Your task to perform on an android device: Add energizer triple a to the cart on ebay.com, then select checkout. Image 0: 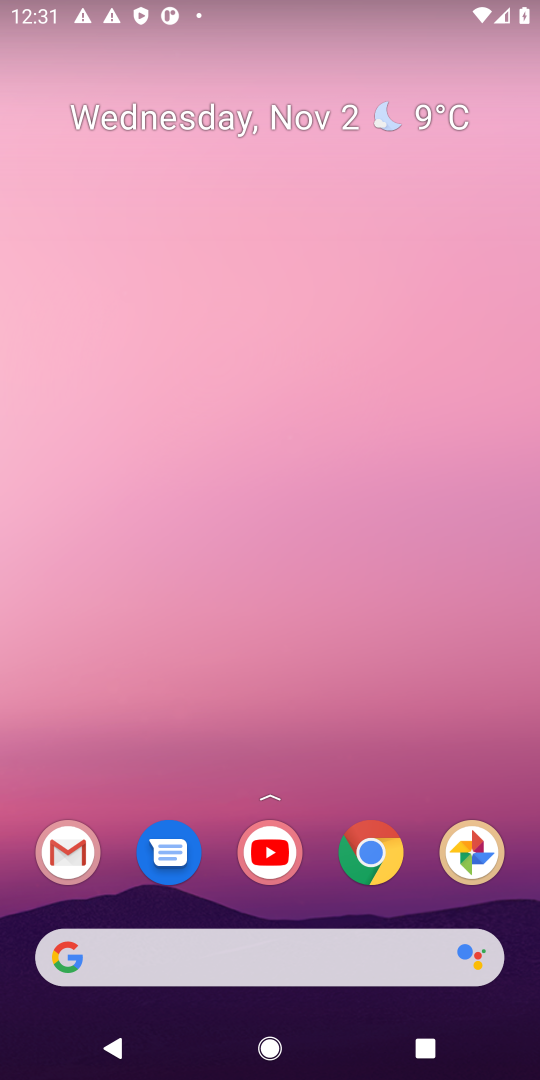
Step 0: drag from (359, 910) to (341, 172)
Your task to perform on an android device: Add energizer triple a to the cart on ebay.com, then select checkout. Image 1: 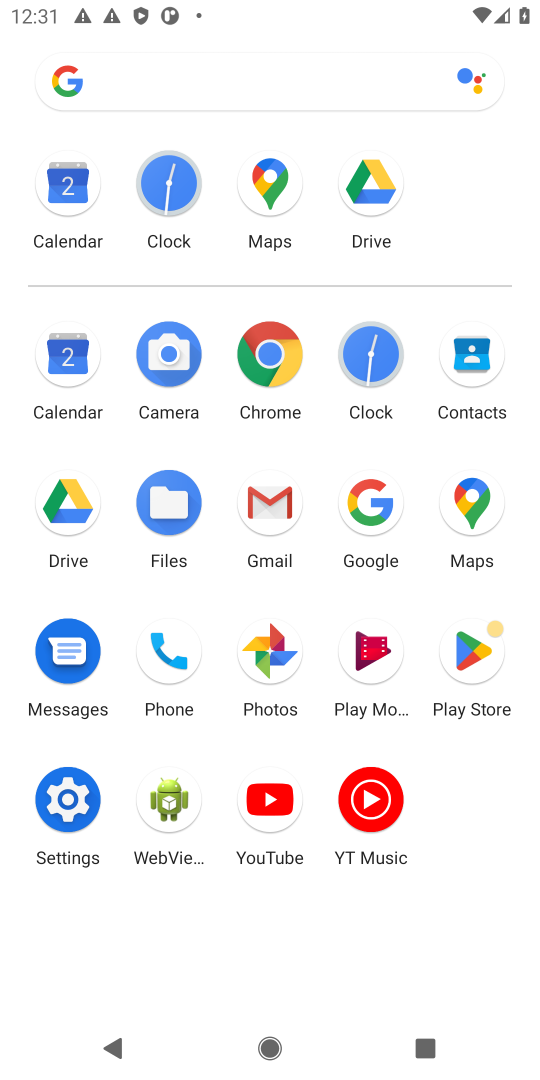
Step 1: click (363, 498)
Your task to perform on an android device: Add energizer triple a to the cart on ebay.com, then select checkout. Image 2: 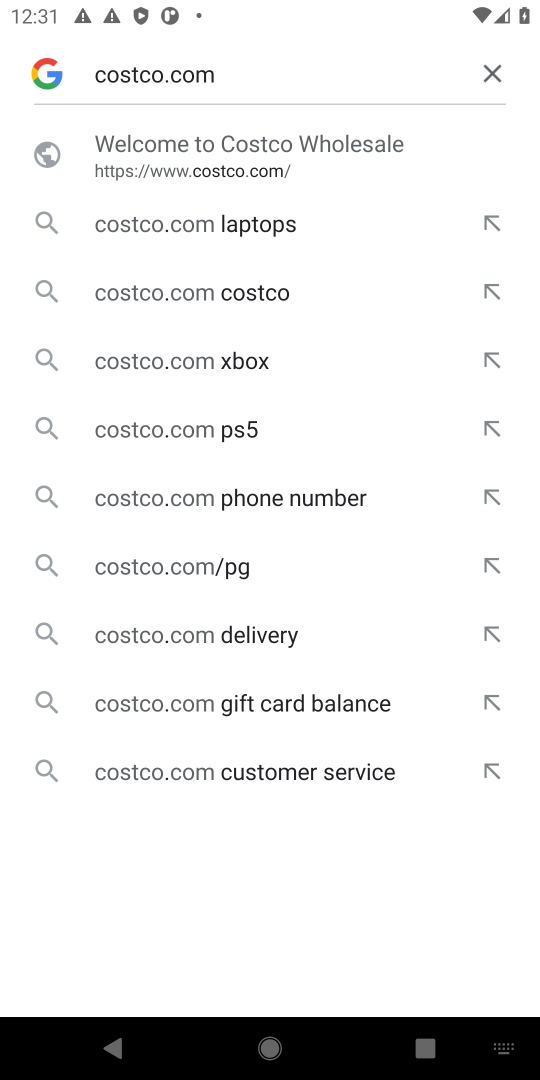
Step 2: click (493, 80)
Your task to perform on an android device: Add energizer triple a to the cart on ebay.com, then select checkout. Image 3: 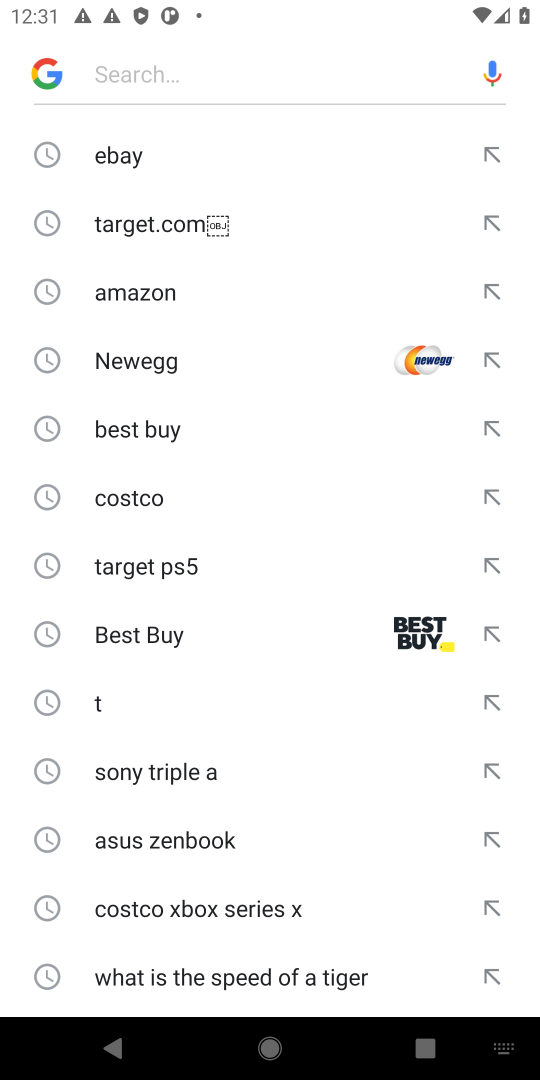
Step 3: type "ebay.com"
Your task to perform on an android device: Add energizer triple a to the cart on ebay.com, then select checkout. Image 4: 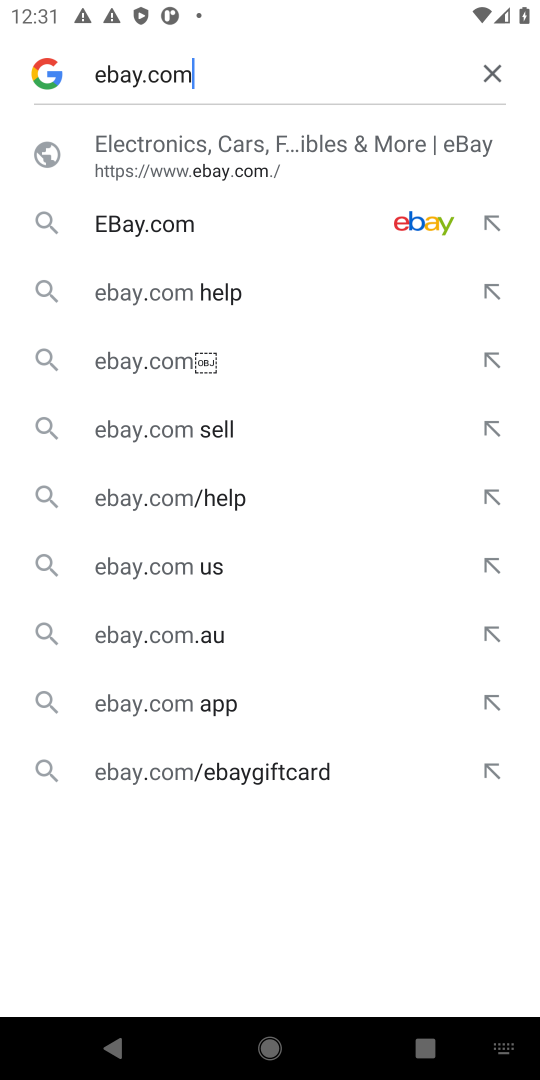
Step 4: click (335, 166)
Your task to perform on an android device: Add energizer triple a to the cart on ebay.com, then select checkout. Image 5: 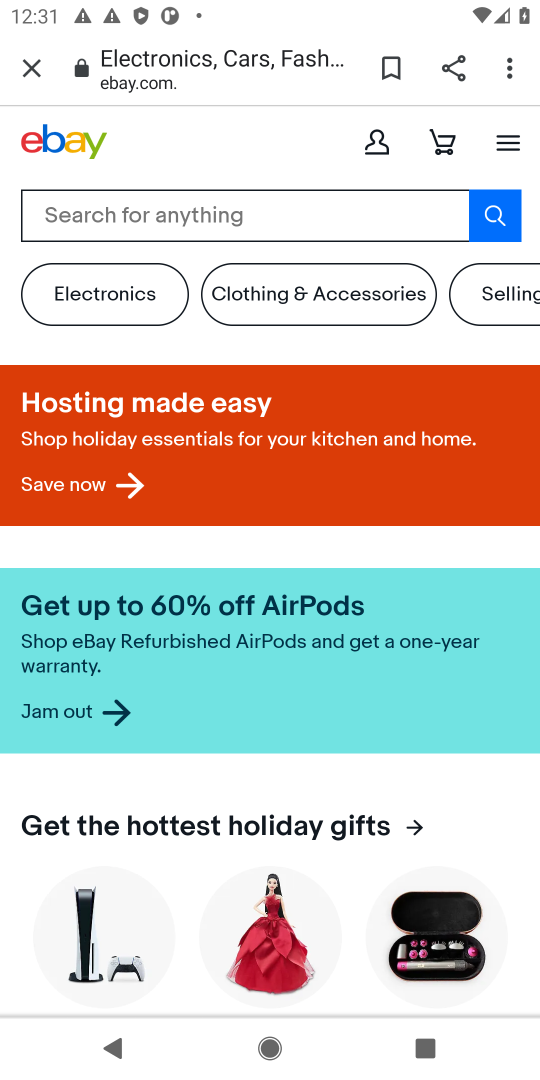
Step 5: drag from (242, 557) to (329, 101)
Your task to perform on an android device: Add energizer triple a to the cart on ebay.com, then select checkout. Image 6: 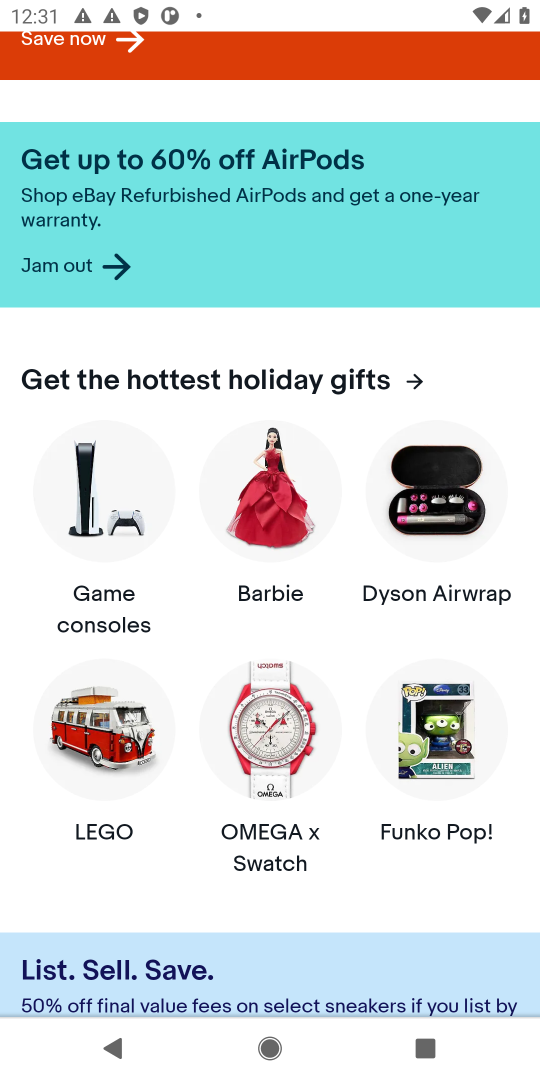
Step 6: drag from (333, 176) to (322, 410)
Your task to perform on an android device: Add energizer triple a to the cart on ebay.com, then select checkout. Image 7: 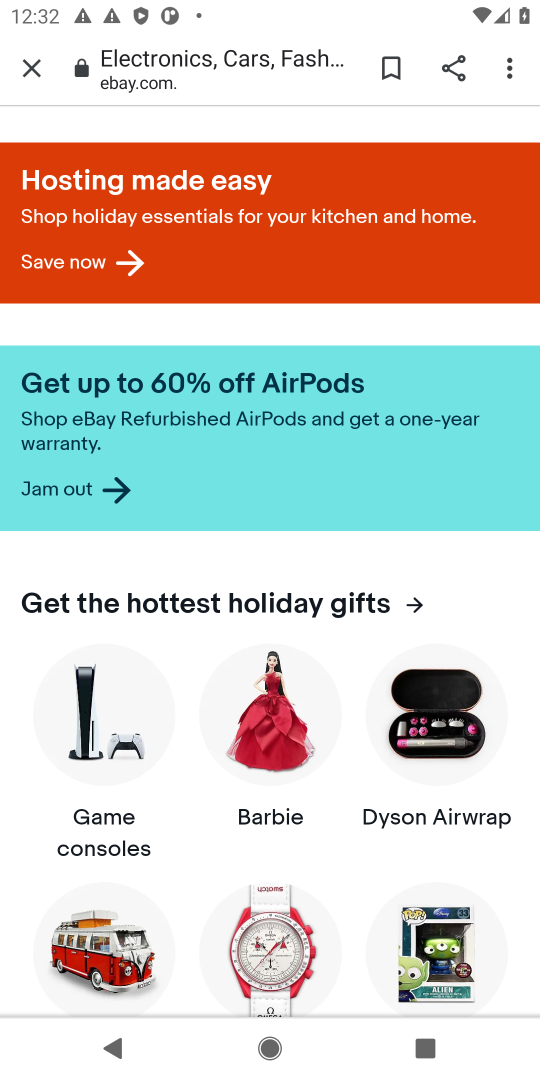
Step 7: drag from (165, 281) to (231, 479)
Your task to perform on an android device: Add energizer triple a to the cart on ebay.com, then select checkout. Image 8: 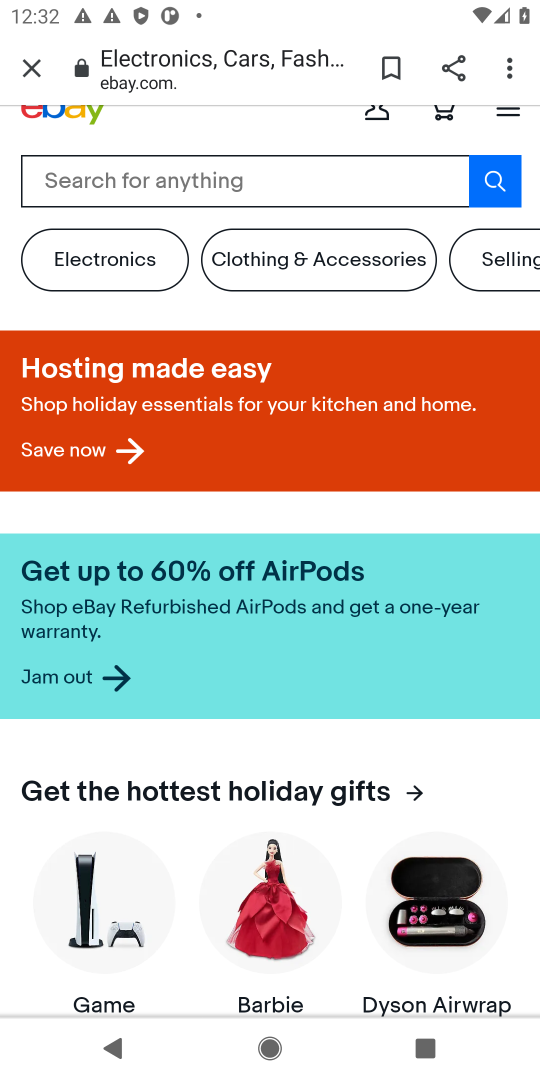
Step 8: click (299, 186)
Your task to perform on an android device: Add energizer triple a to the cart on ebay.com, then select checkout. Image 9: 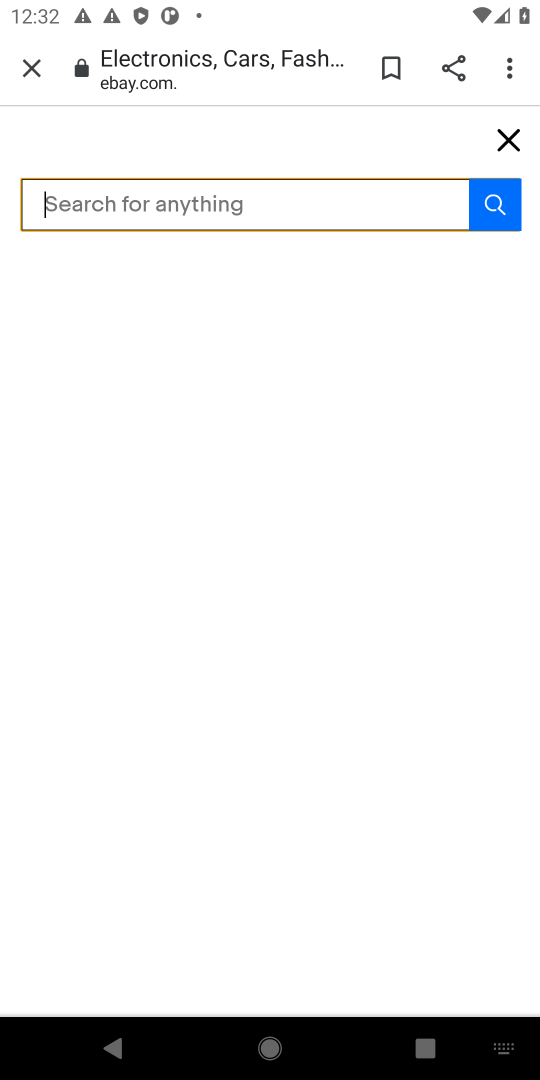
Step 9: type "energizer triple"
Your task to perform on an android device: Add energizer triple a to the cart on ebay.com, then select checkout. Image 10: 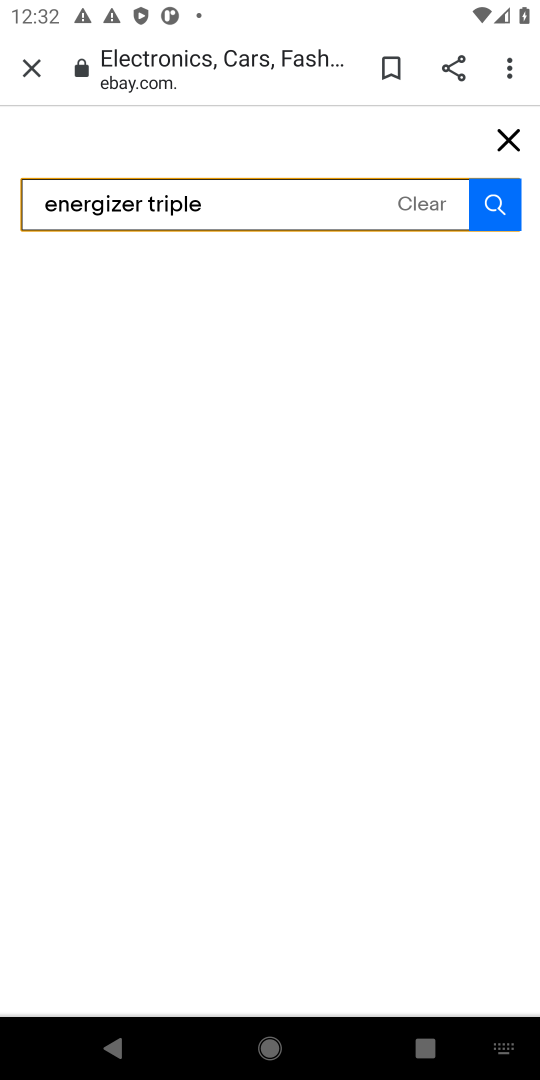
Step 10: click (485, 223)
Your task to perform on an android device: Add energizer triple a to the cart on ebay.com, then select checkout. Image 11: 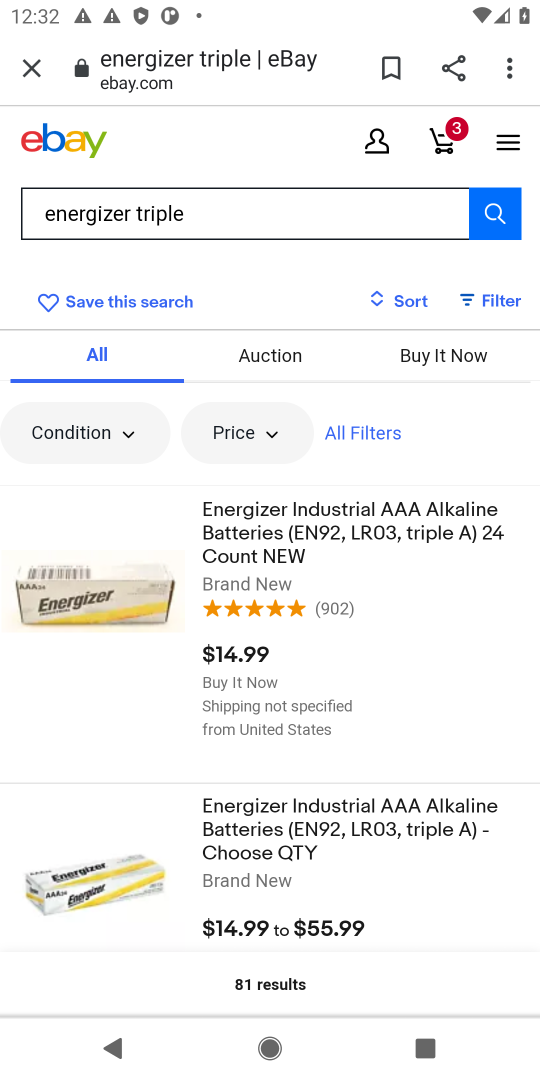
Step 11: click (384, 531)
Your task to perform on an android device: Add energizer triple a to the cart on ebay.com, then select checkout. Image 12: 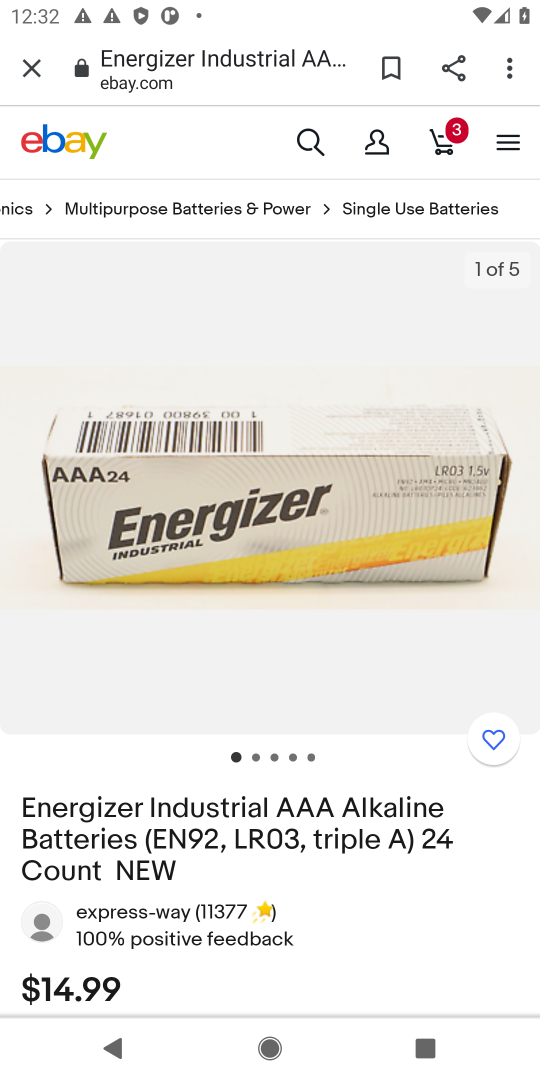
Step 12: drag from (367, 795) to (406, 420)
Your task to perform on an android device: Add energizer triple a to the cart on ebay.com, then select checkout. Image 13: 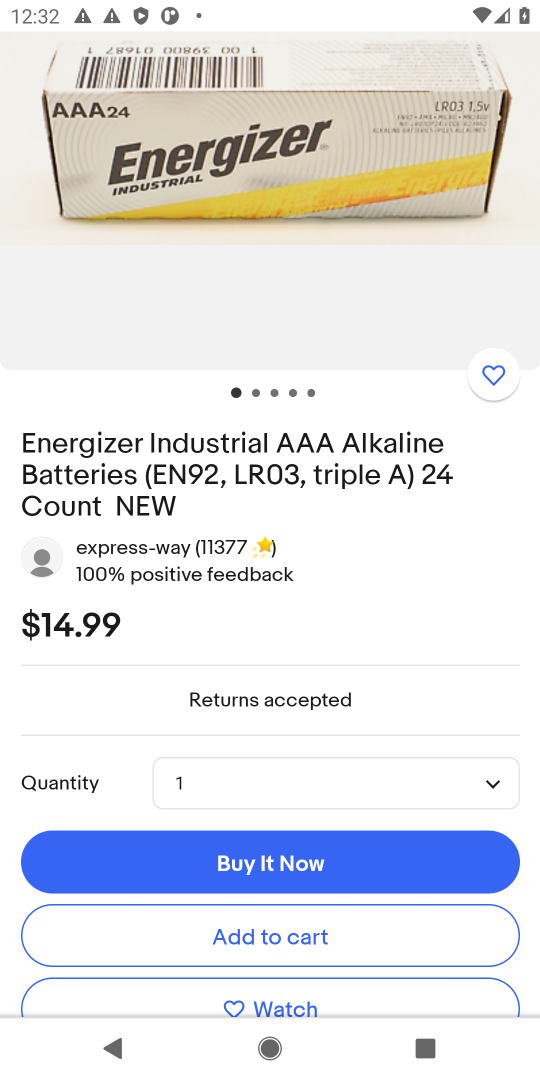
Step 13: drag from (311, 989) to (365, 826)
Your task to perform on an android device: Add energizer triple a to the cart on ebay.com, then select checkout. Image 14: 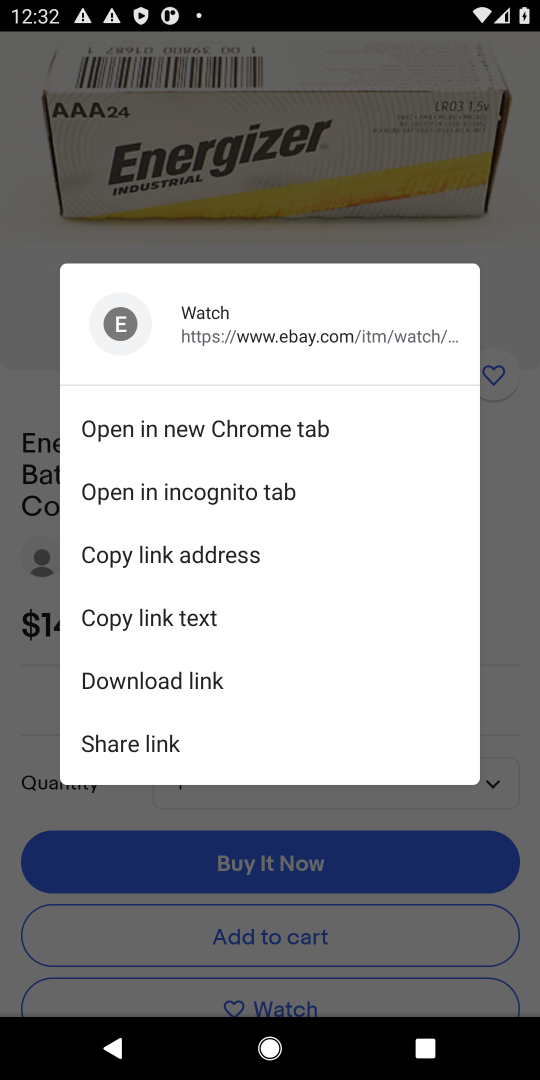
Step 14: click (365, 820)
Your task to perform on an android device: Add energizer triple a to the cart on ebay.com, then select checkout. Image 15: 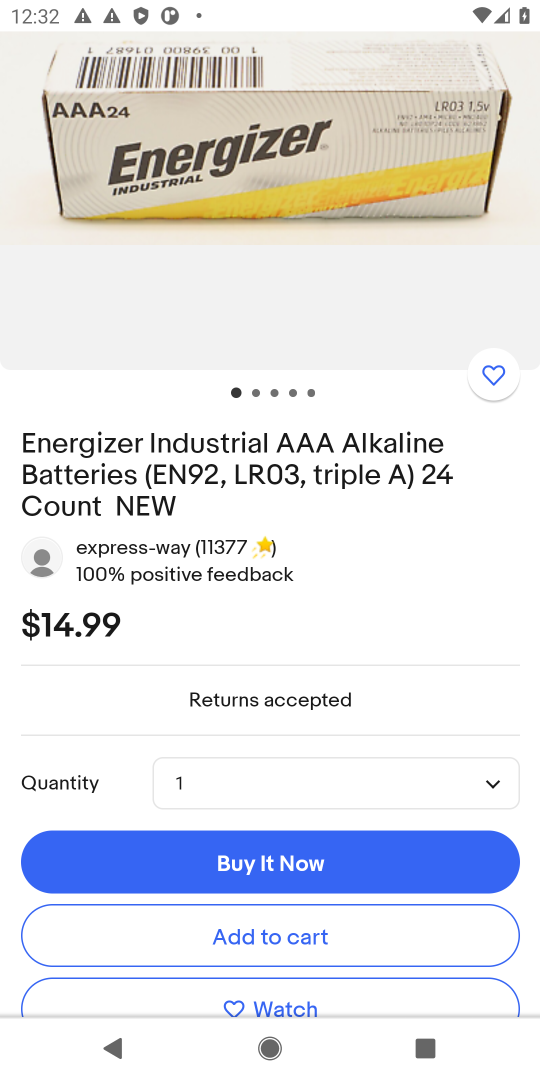
Step 15: click (345, 933)
Your task to perform on an android device: Add energizer triple a to the cart on ebay.com, then select checkout. Image 16: 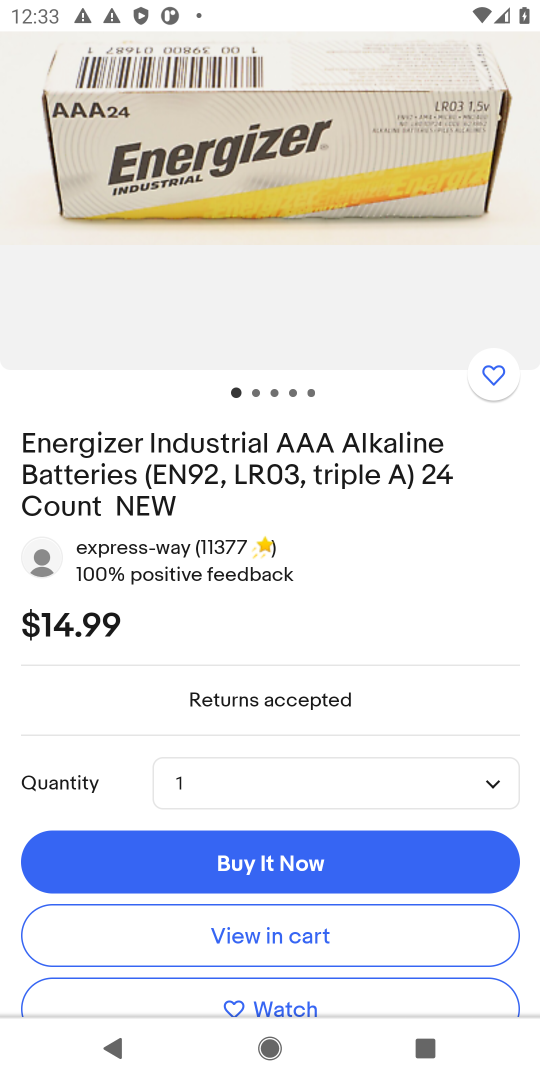
Step 16: click (374, 939)
Your task to perform on an android device: Add energizer triple a to the cart on ebay.com, then select checkout. Image 17: 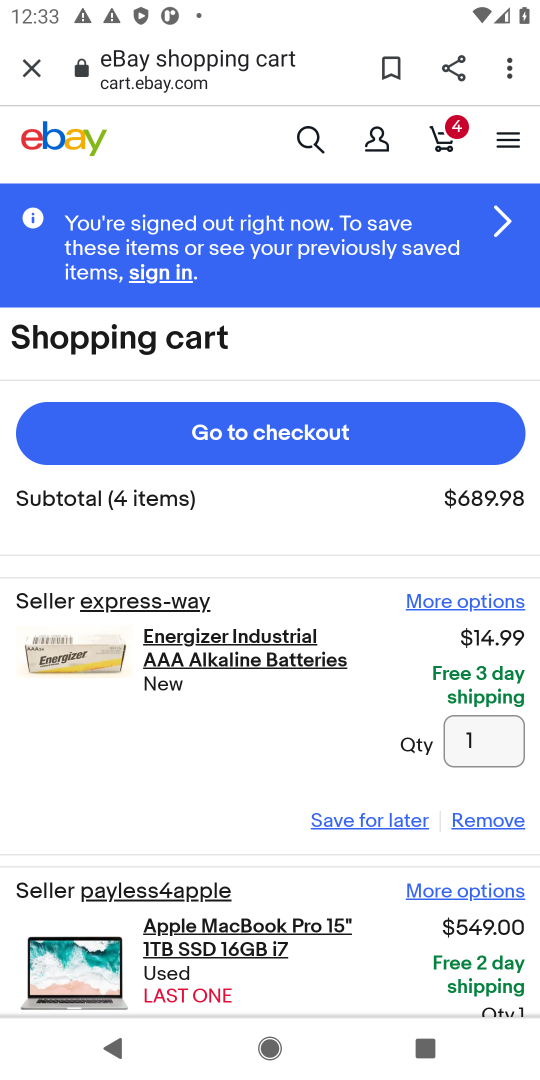
Step 17: click (349, 436)
Your task to perform on an android device: Add energizer triple a to the cart on ebay.com, then select checkout. Image 18: 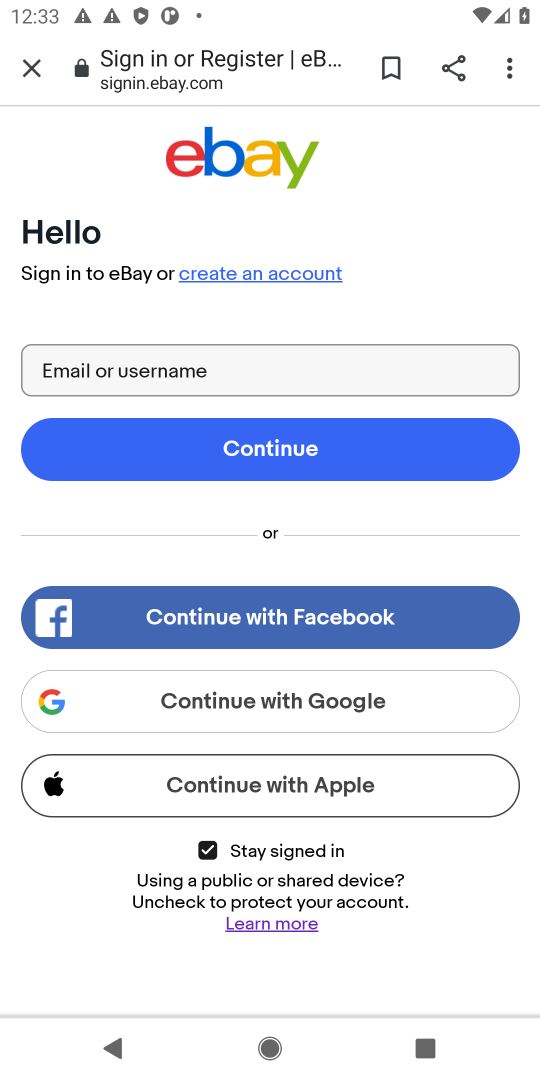
Step 18: task complete